Your task to perform on an android device: toggle priority inbox in the gmail app Image 0: 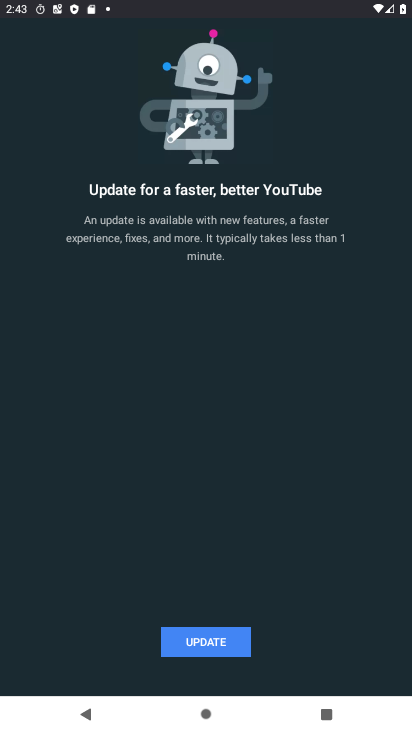
Step 0: press home button
Your task to perform on an android device: toggle priority inbox in the gmail app Image 1: 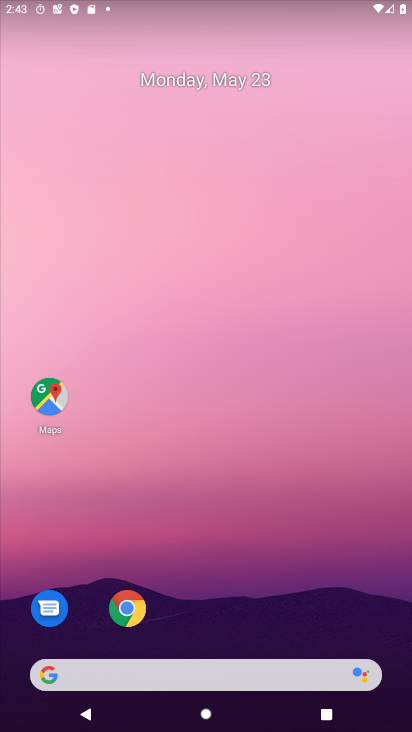
Step 1: drag from (198, 552) to (237, 9)
Your task to perform on an android device: toggle priority inbox in the gmail app Image 2: 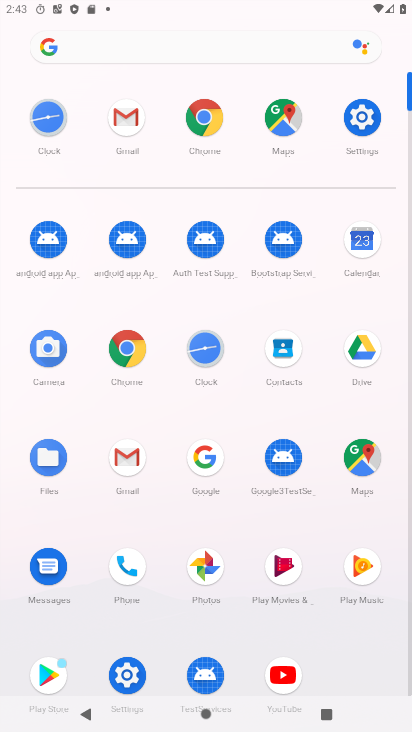
Step 2: click (133, 467)
Your task to perform on an android device: toggle priority inbox in the gmail app Image 3: 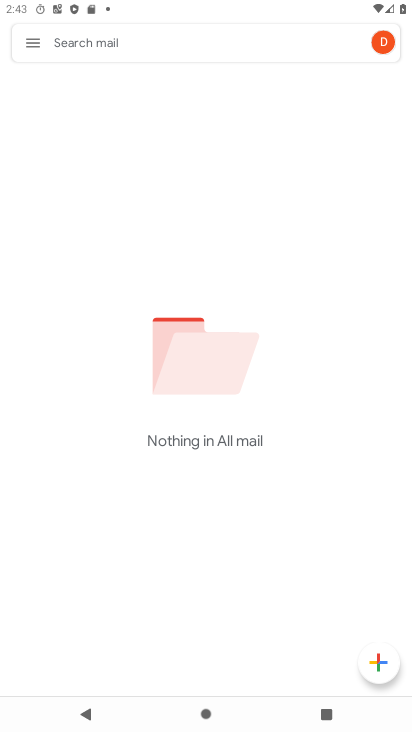
Step 3: click (27, 52)
Your task to perform on an android device: toggle priority inbox in the gmail app Image 4: 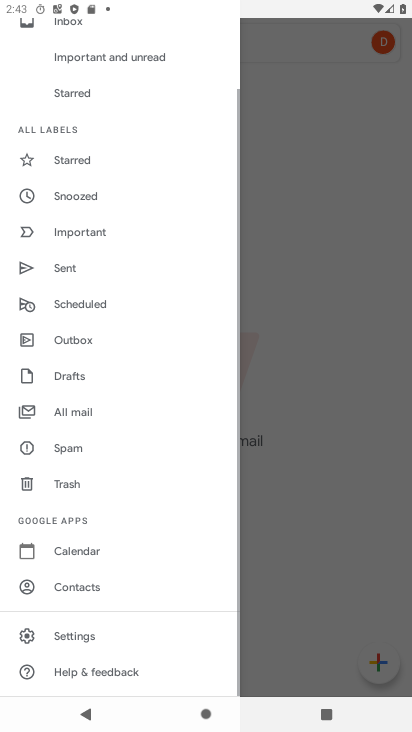
Step 4: click (85, 641)
Your task to perform on an android device: toggle priority inbox in the gmail app Image 5: 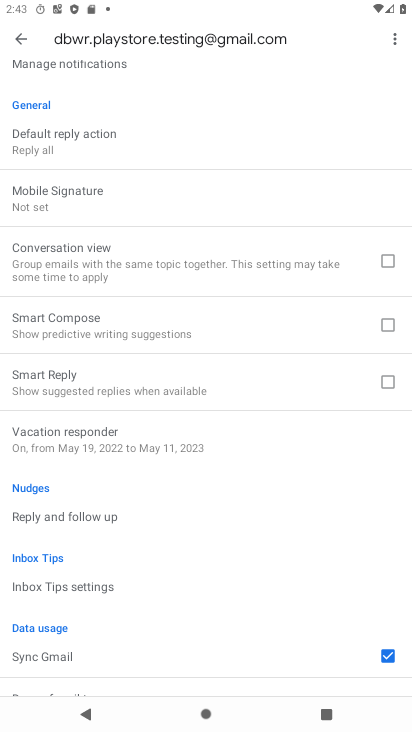
Step 5: drag from (80, 123) to (129, 731)
Your task to perform on an android device: toggle priority inbox in the gmail app Image 6: 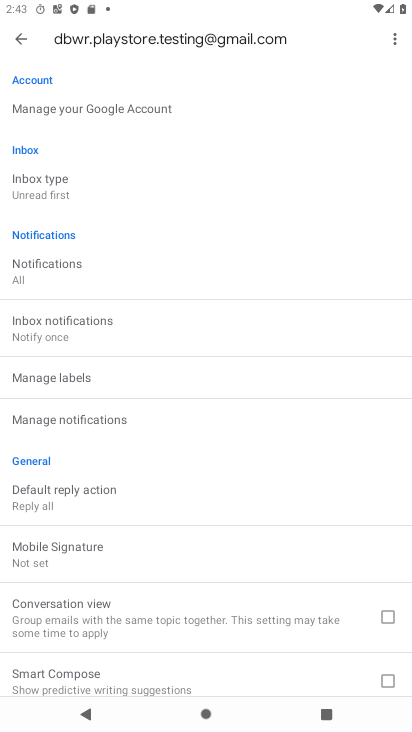
Step 6: click (57, 182)
Your task to perform on an android device: toggle priority inbox in the gmail app Image 7: 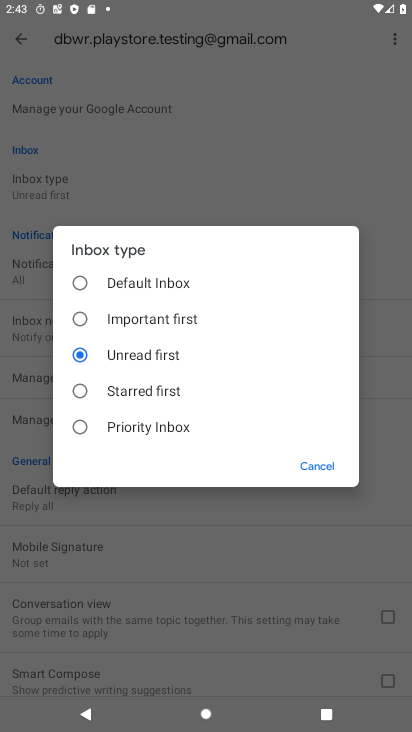
Step 7: click (123, 426)
Your task to perform on an android device: toggle priority inbox in the gmail app Image 8: 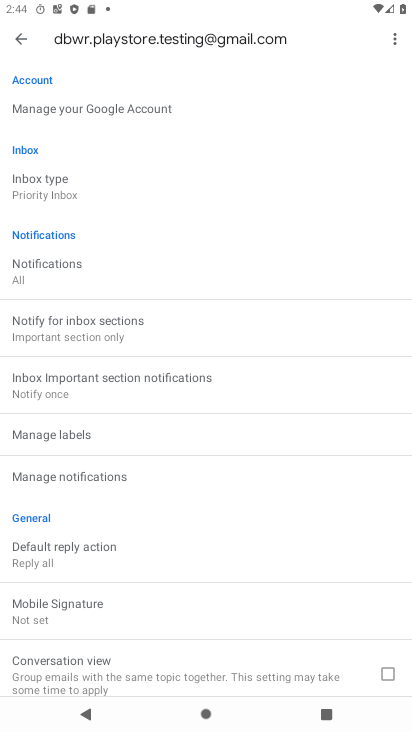
Step 8: task complete